Your task to perform on an android device: Open maps Image 0: 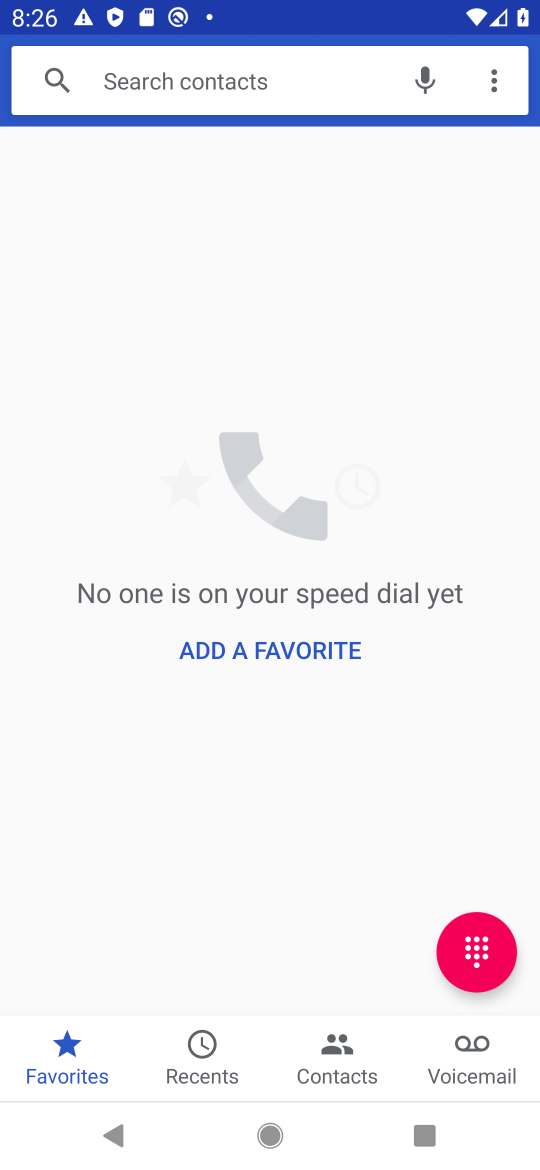
Step 0: press home button
Your task to perform on an android device: Open maps Image 1: 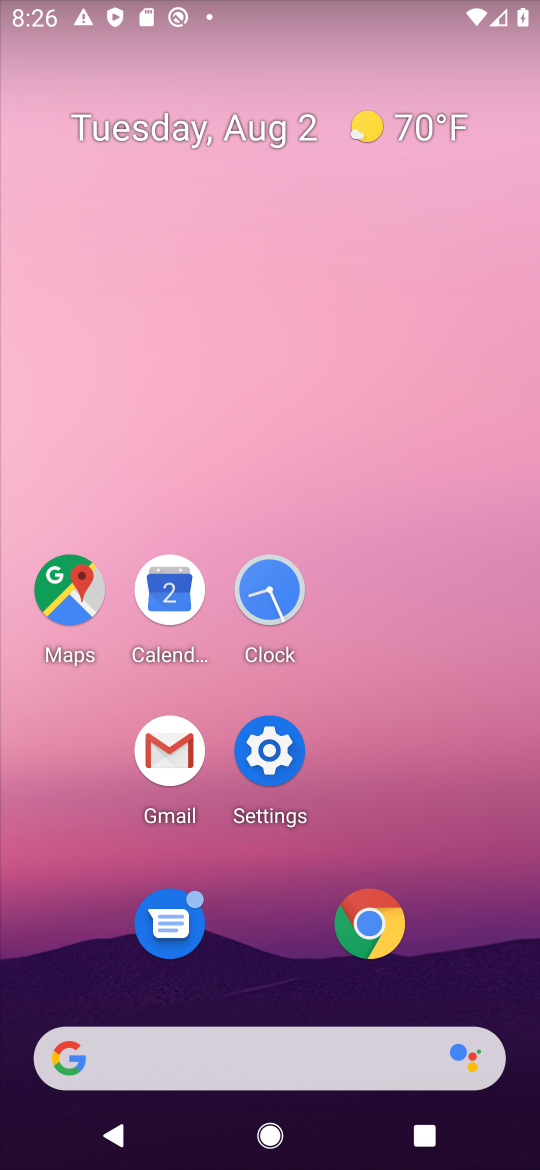
Step 1: click (68, 595)
Your task to perform on an android device: Open maps Image 2: 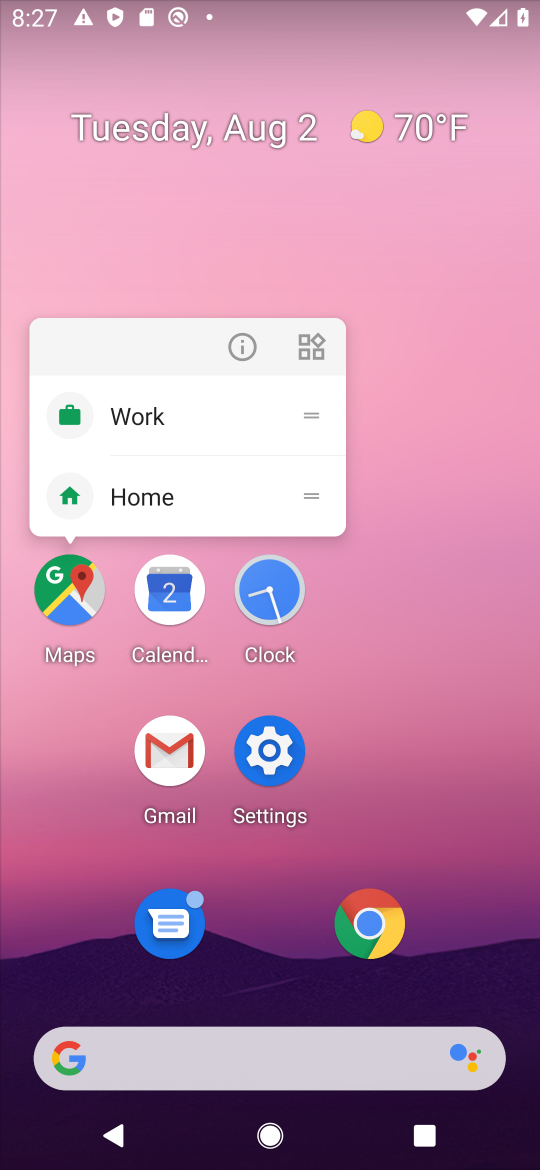
Step 2: click (64, 593)
Your task to perform on an android device: Open maps Image 3: 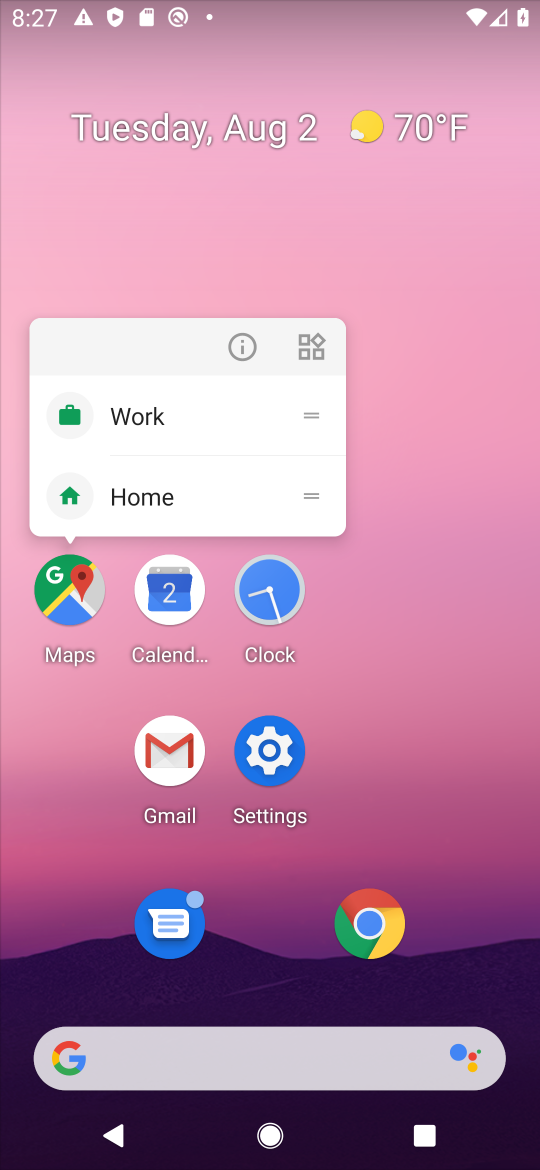
Step 3: click (64, 593)
Your task to perform on an android device: Open maps Image 4: 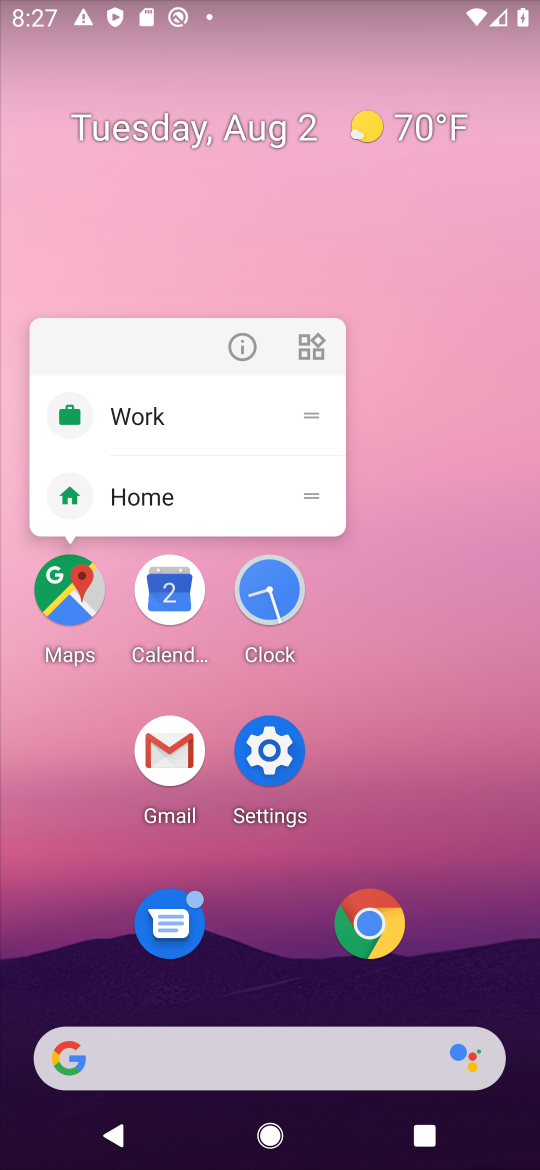
Step 4: click (64, 593)
Your task to perform on an android device: Open maps Image 5: 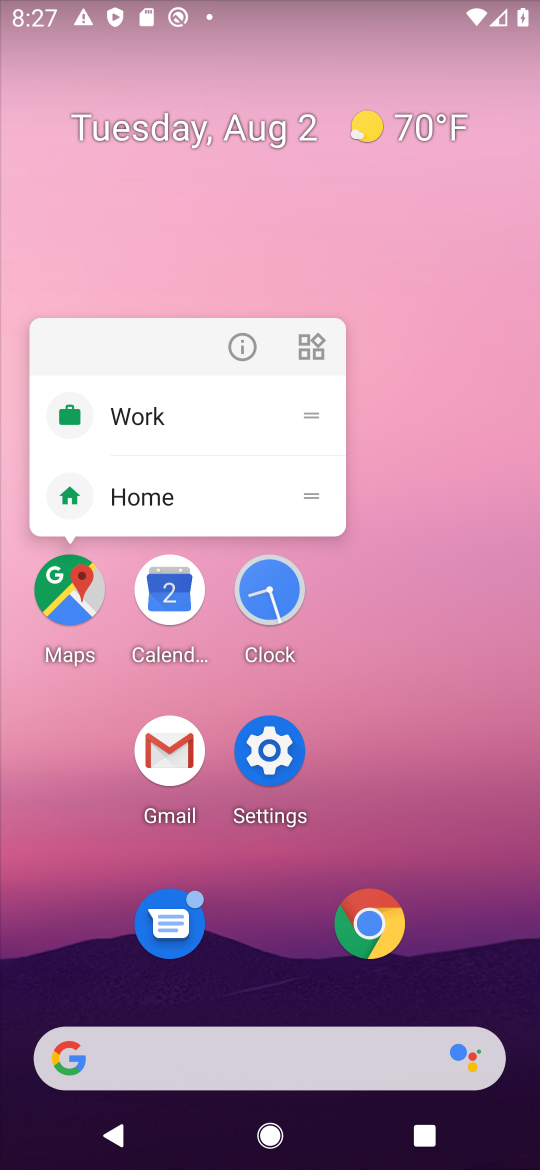
Step 5: click (64, 593)
Your task to perform on an android device: Open maps Image 6: 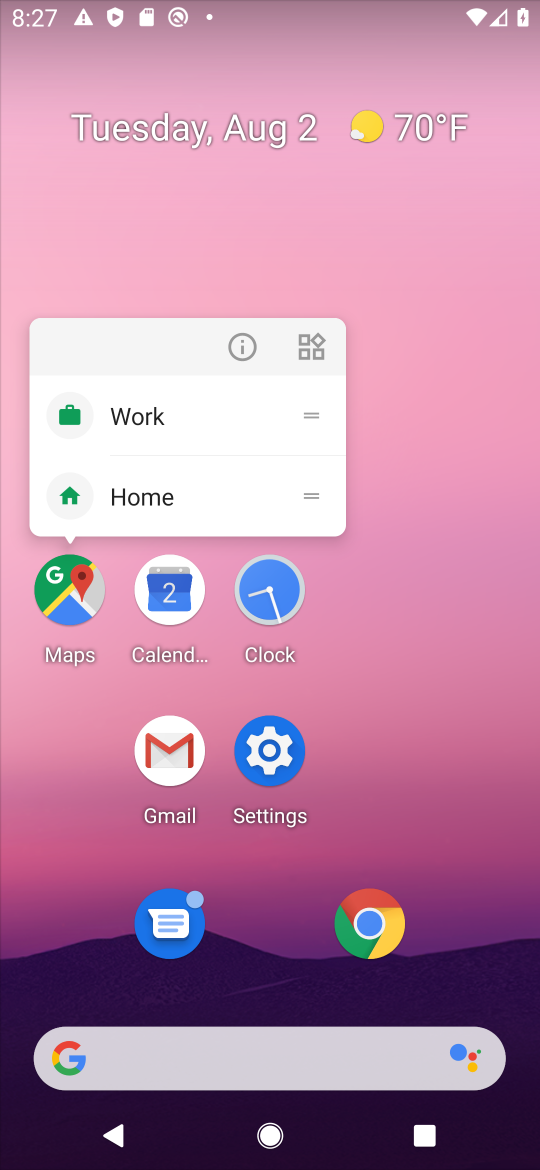
Step 6: click (60, 586)
Your task to perform on an android device: Open maps Image 7: 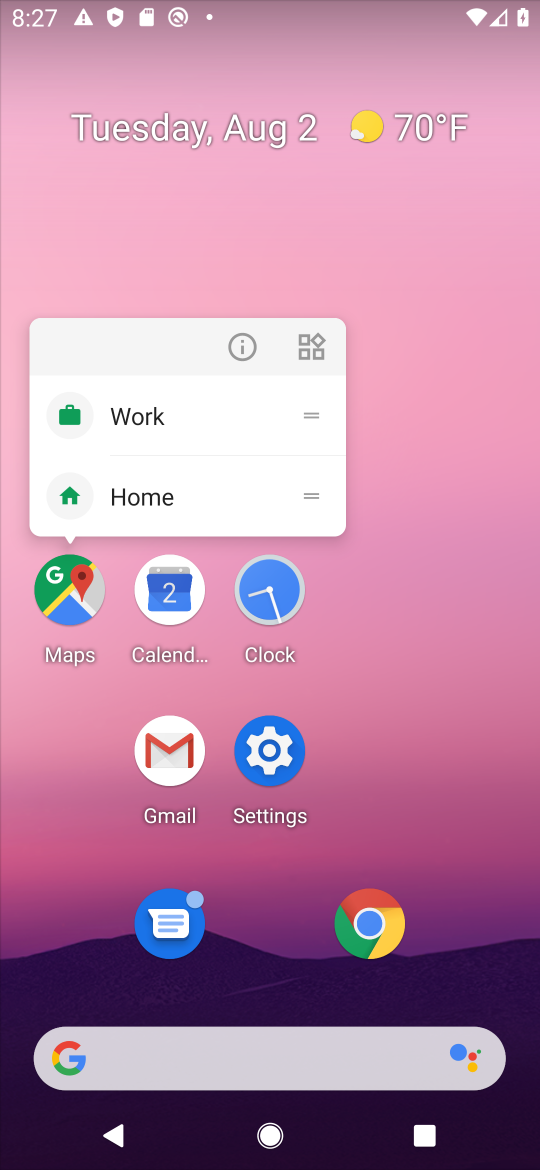
Step 7: click (60, 586)
Your task to perform on an android device: Open maps Image 8: 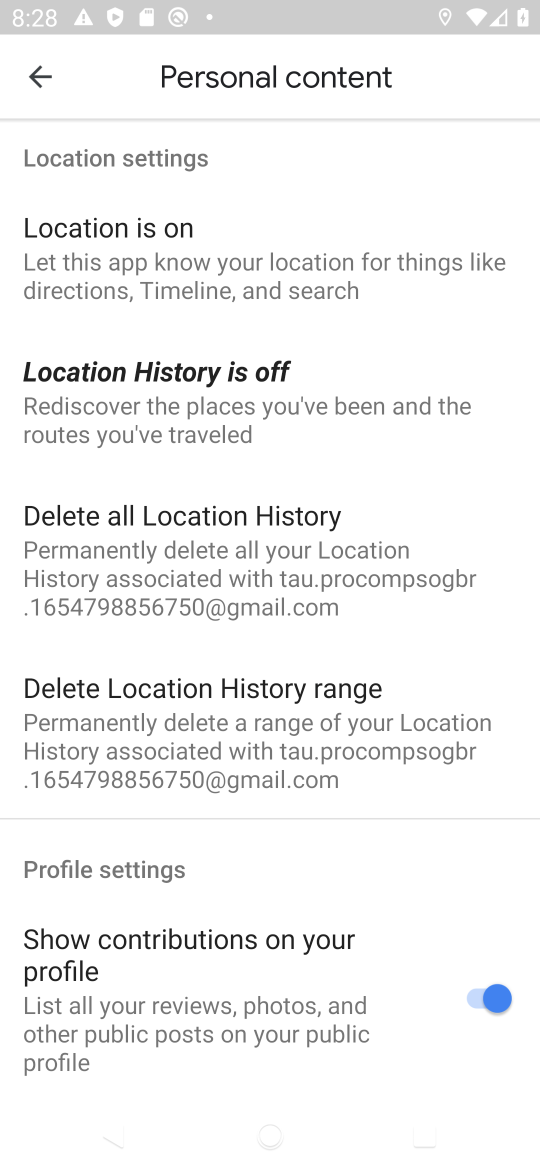
Step 8: click (30, 72)
Your task to perform on an android device: Open maps Image 9: 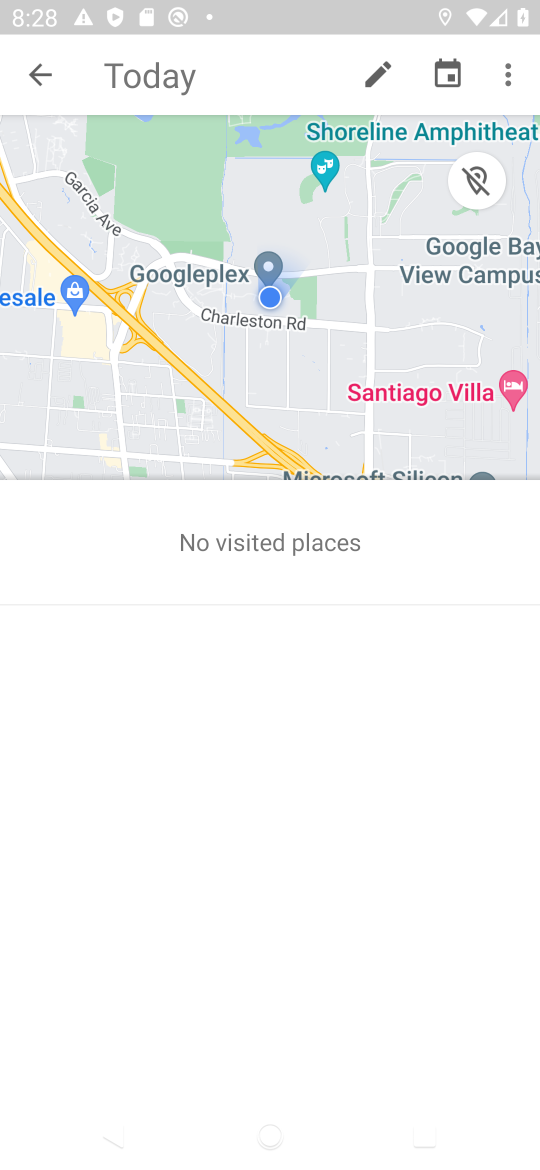
Step 9: click (43, 75)
Your task to perform on an android device: Open maps Image 10: 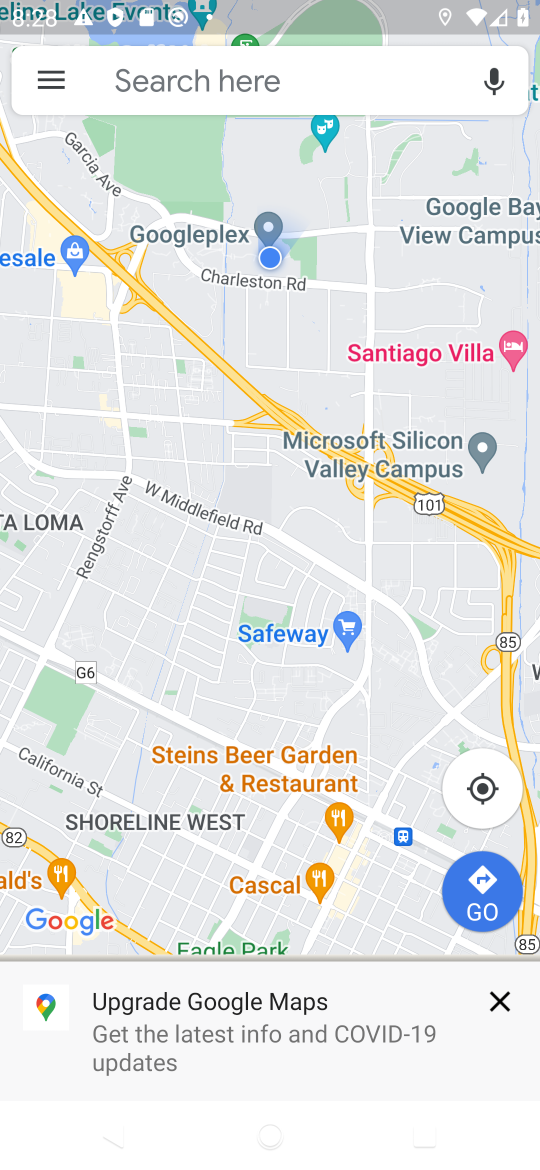
Step 10: task complete